Your task to perform on an android device: Go to display settings Image 0: 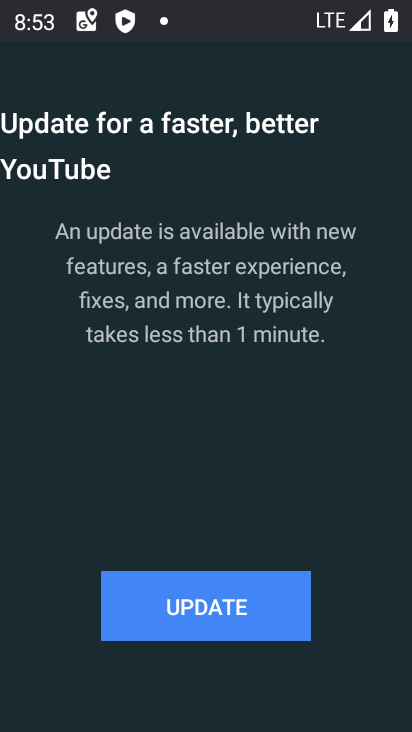
Step 0: press home button
Your task to perform on an android device: Go to display settings Image 1: 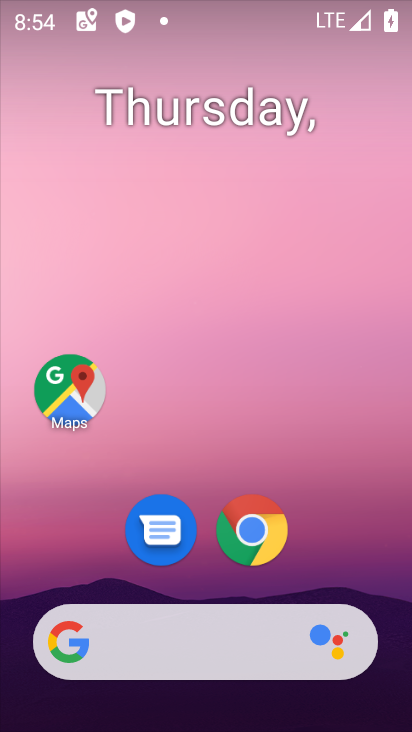
Step 1: drag from (236, 624) to (242, 450)
Your task to perform on an android device: Go to display settings Image 2: 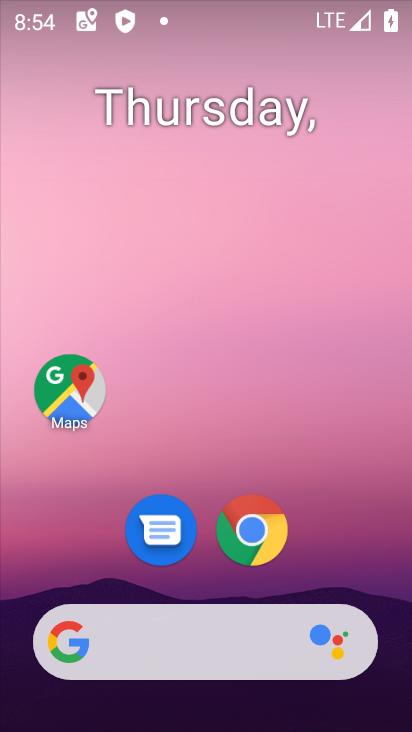
Step 2: drag from (182, 669) to (226, 188)
Your task to perform on an android device: Go to display settings Image 3: 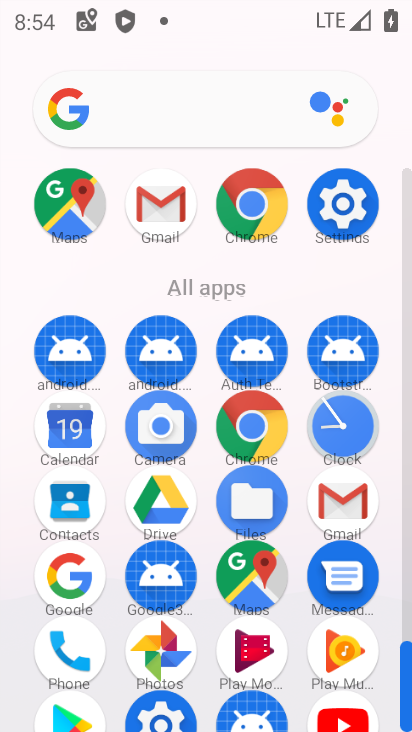
Step 3: click (346, 215)
Your task to perform on an android device: Go to display settings Image 4: 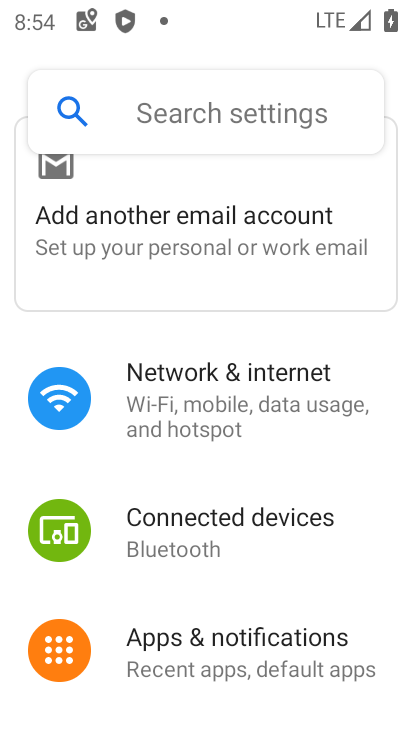
Step 4: drag from (286, 602) to (341, 134)
Your task to perform on an android device: Go to display settings Image 5: 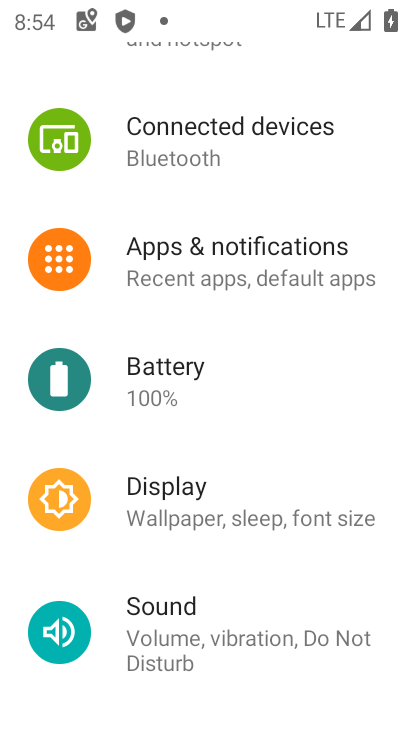
Step 5: click (240, 511)
Your task to perform on an android device: Go to display settings Image 6: 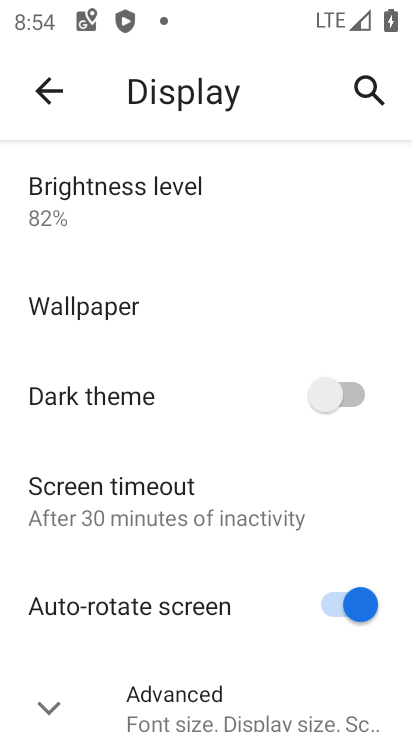
Step 6: task complete